Your task to perform on an android device: open app "Google Play services" (install if not already installed) Image 0: 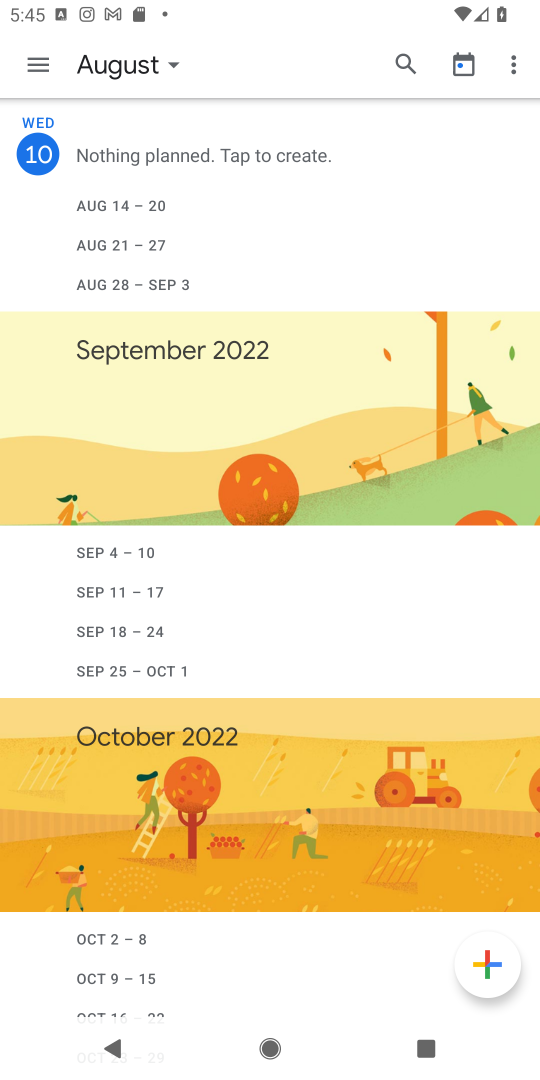
Step 0: press home button
Your task to perform on an android device: open app "Google Play services" (install if not already installed) Image 1: 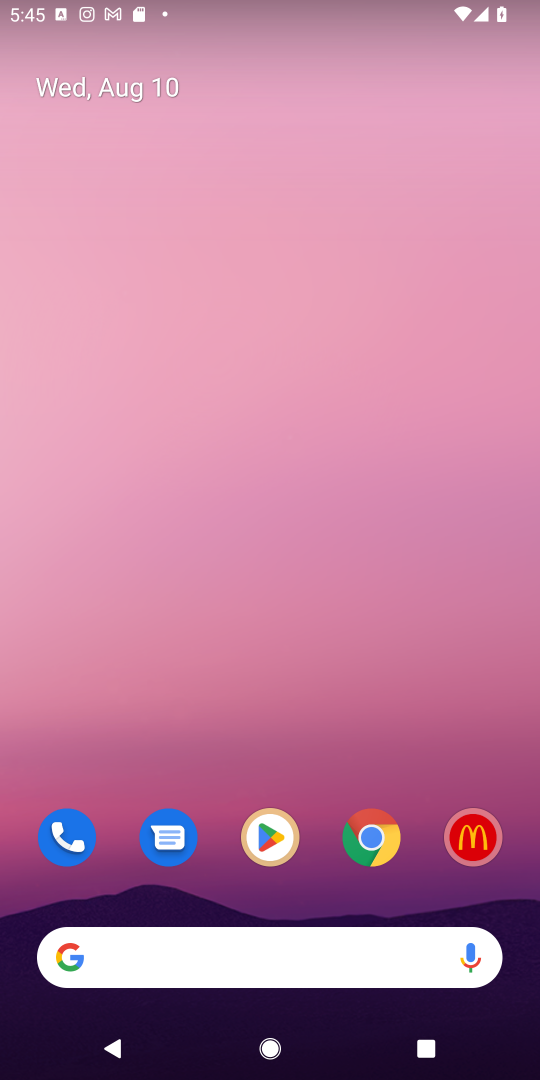
Step 1: click (263, 837)
Your task to perform on an android device: open app "Google Play services" (install if not already installed) Image 2: 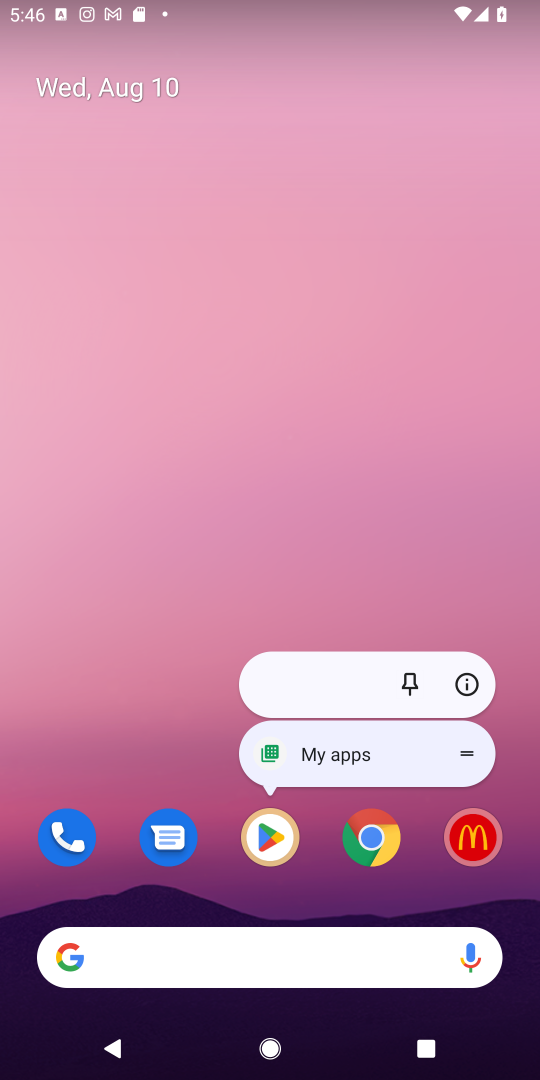
Step 2: click (262, 841)
Your task to perform on an android device: open app "Google Play services" (install if not already installed) Image 3: 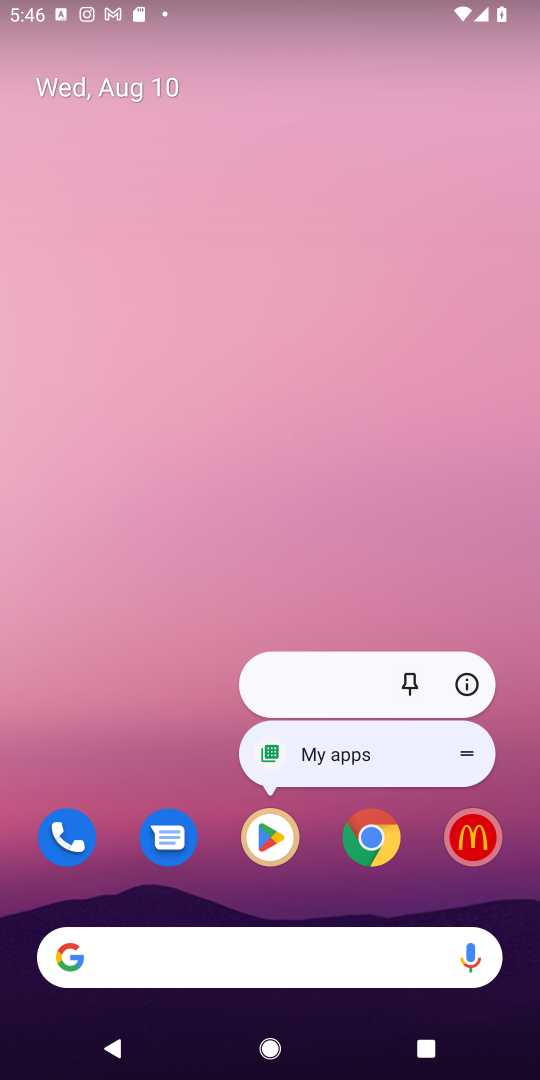
Step 3: click (266, 843)
Your task to perform on an android device: open app "Google Play services" (install if not already installed) Image 4: 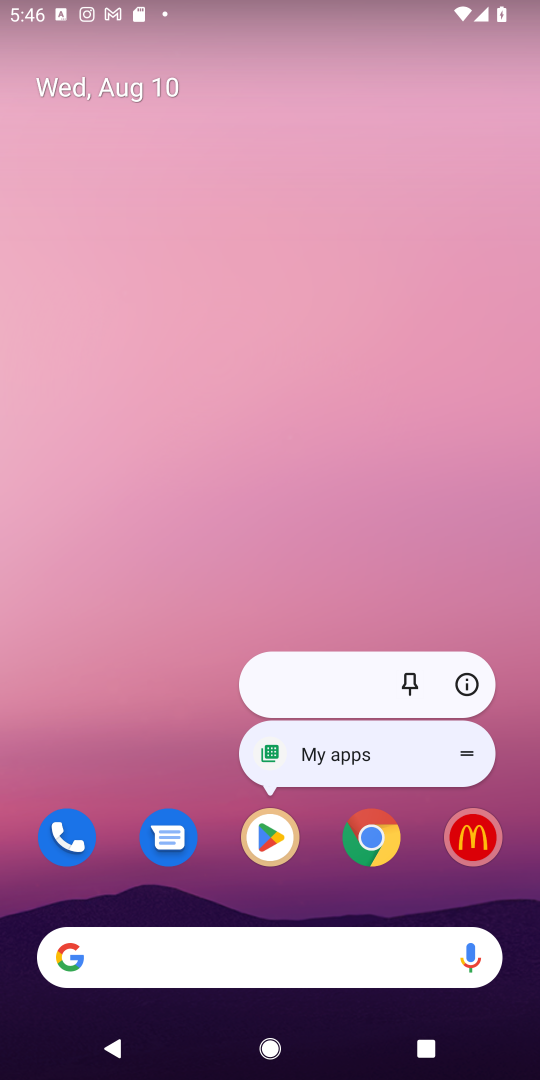
Step 4: click (266, 840)
Your task to perform on an android device: open app "Google Play services" (install if not already installed) Image 5: 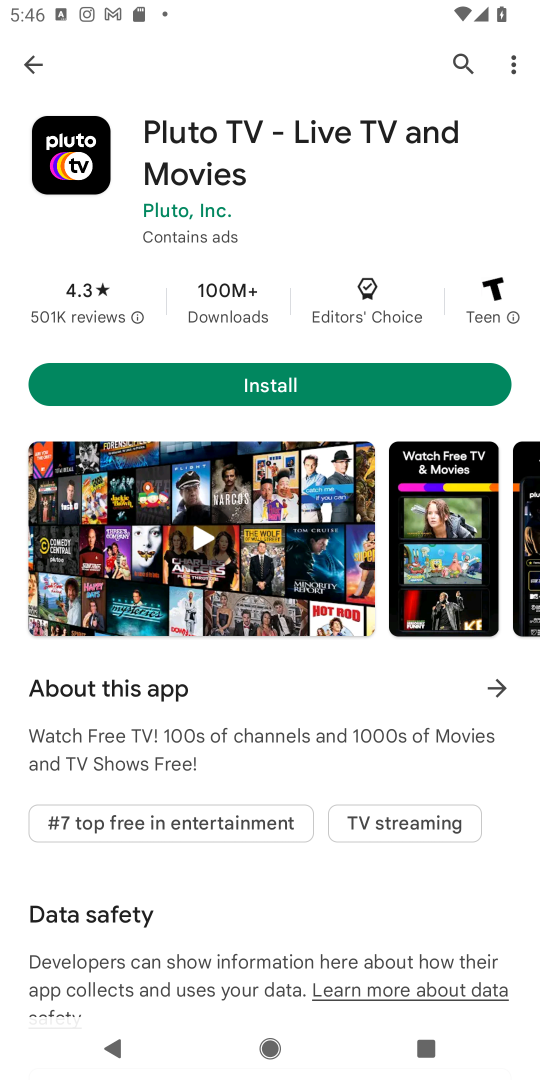
Step 5: click (458, 60)
Your task to perform on an android device: open app "Google Play services" (install if not already installed) Image 6: 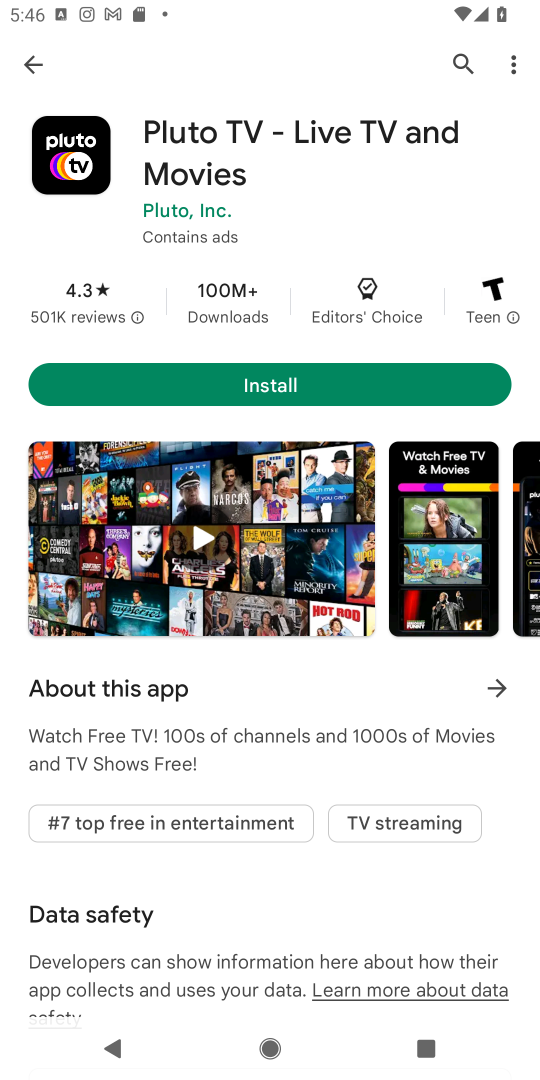
Step 6: type "Google Play services"
Your task to perform on an android device: open app "Google Play services" (install if not already installed) Image 7: 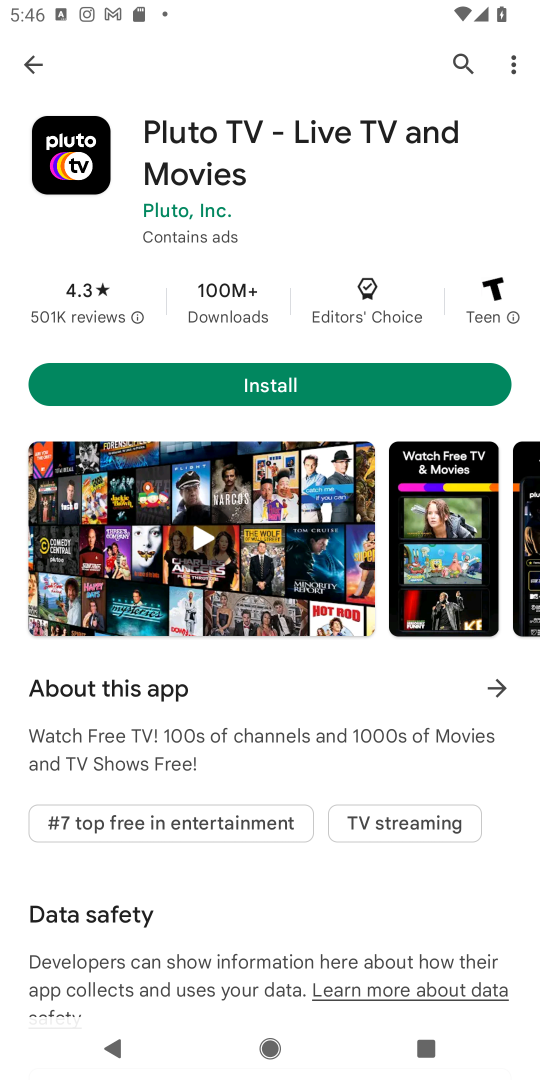
Step 7: click (459, 55)
Your task to perform on an android device: open app "Google Play services" (install if not already installed) Image 8: 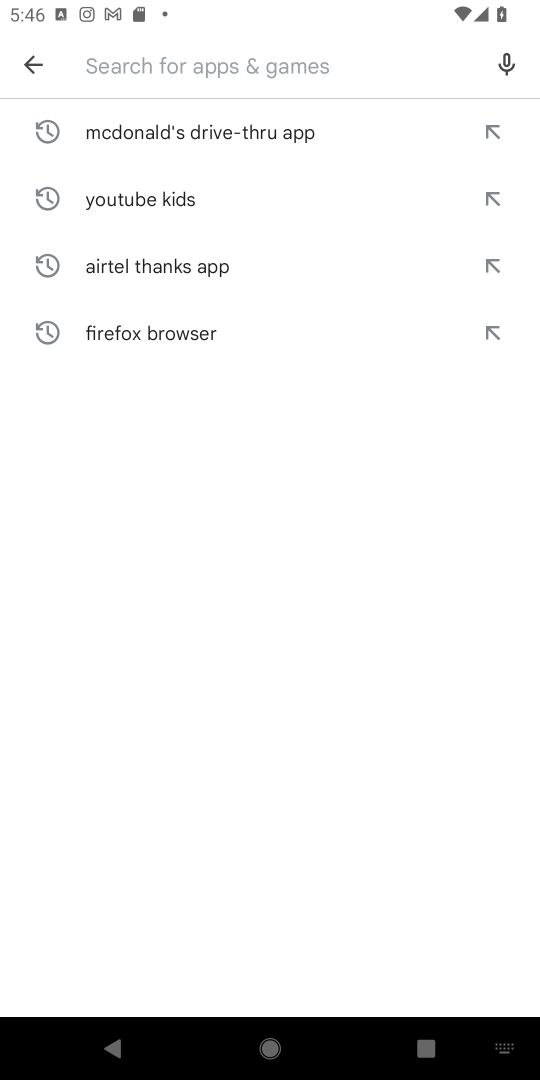
Step 8: type "Google Play services"
Your task to perform on an android device: open app "Google Play services" (install if not already installed) Image 9: 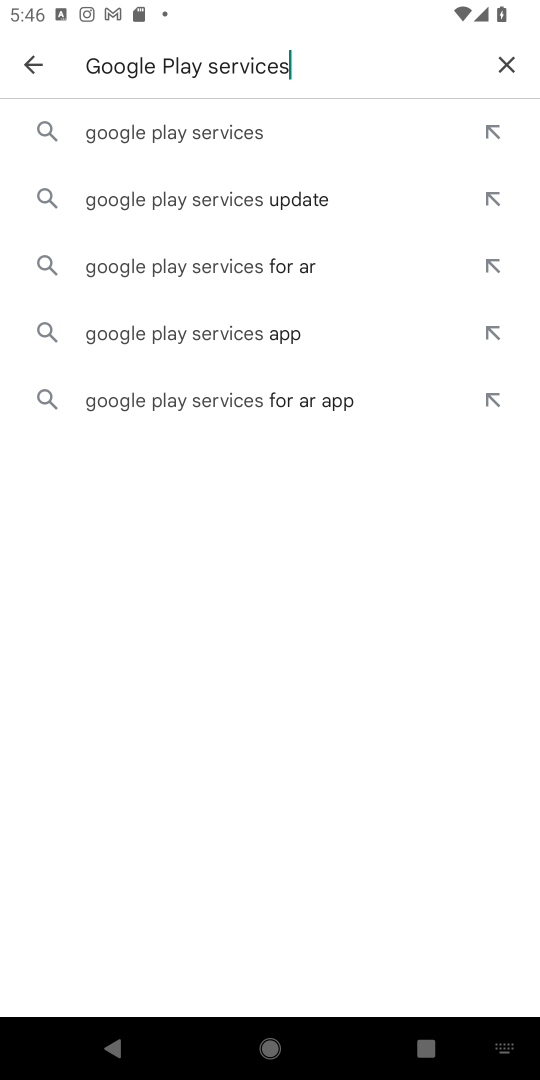
Step 9: click (224, 137)
Your task to perform on an android device: open app "Google Play services" (install if not already installed) Image 10: 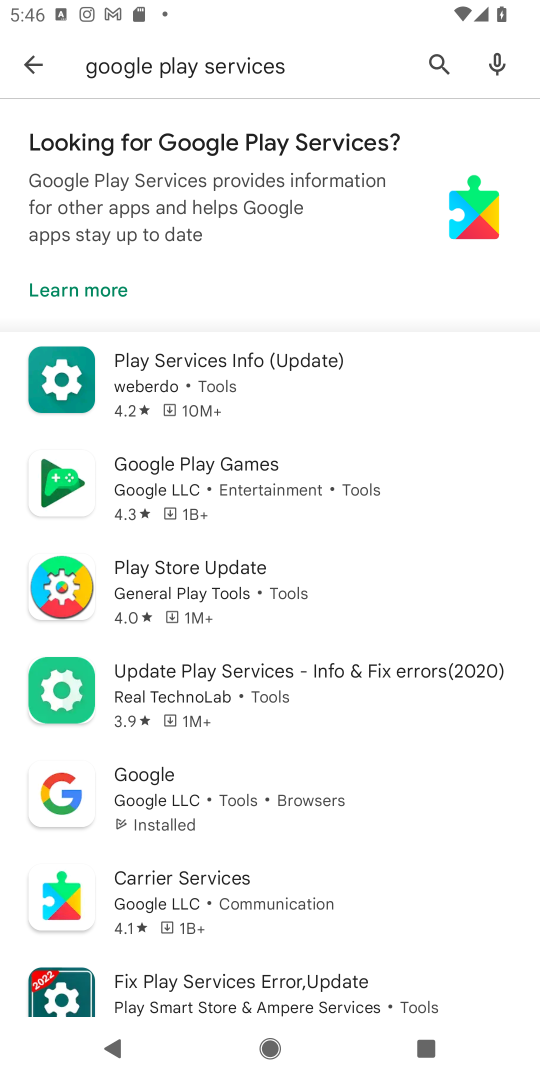
Step 10: task complete